Your task to perform on an android device: Go to privacy settings Image 0: 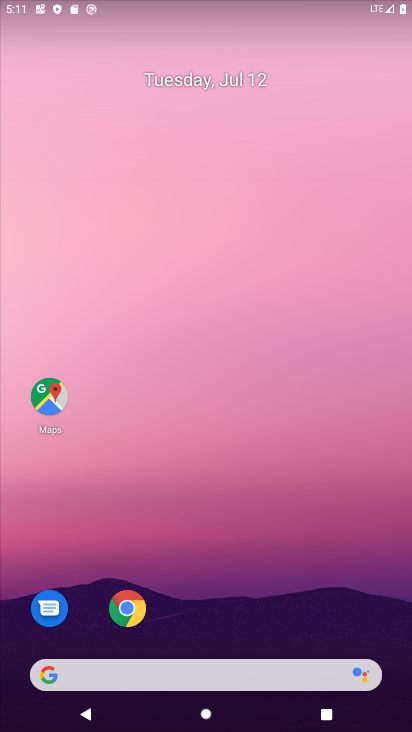
Step 0: drag from (181, 633) to (214, 222)
Your task to perform on an android device: Go to privacy settings Image 1: 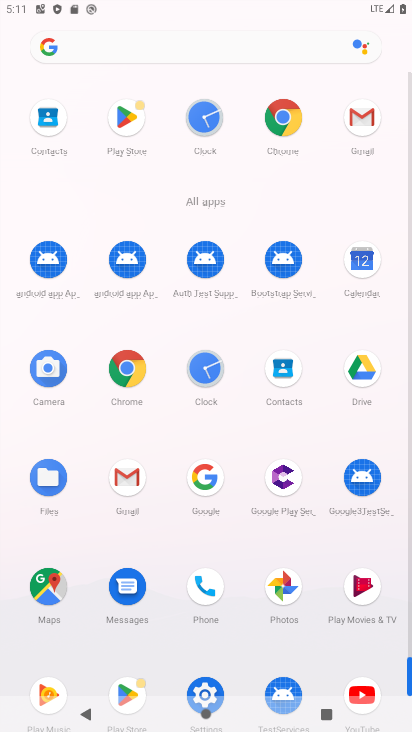
Step 1: click (201, 685)
Your task to perform on an android device: Go to privacy settings Image 2: 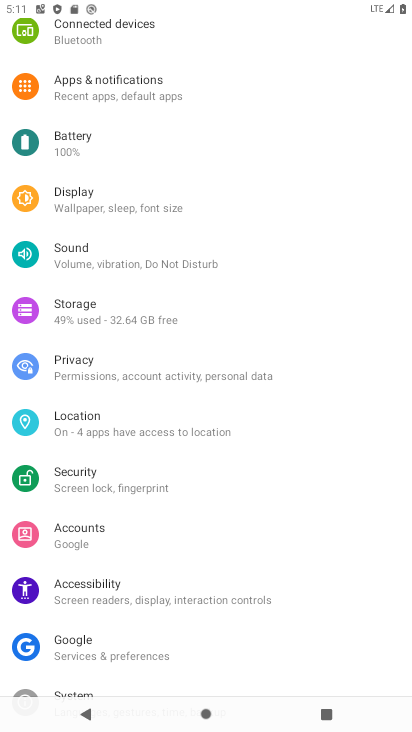
Step 2: click (135, 366)
Your task to perform on an android device: Go to privacy settings Image 3: 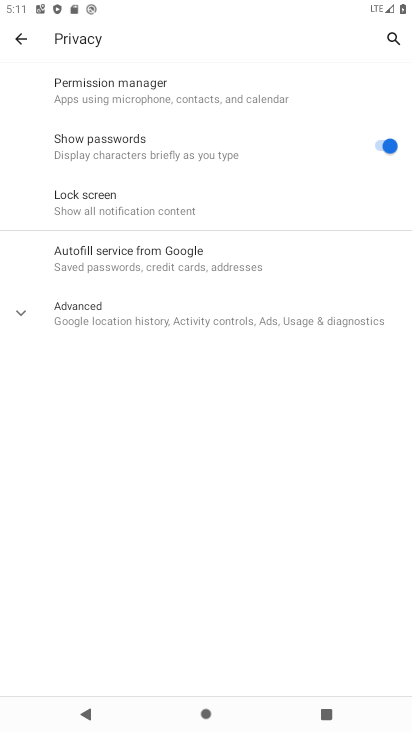
Step 3: task complete